Your task to perform on an android device: open app "PUBG MOBILE" Image 0: 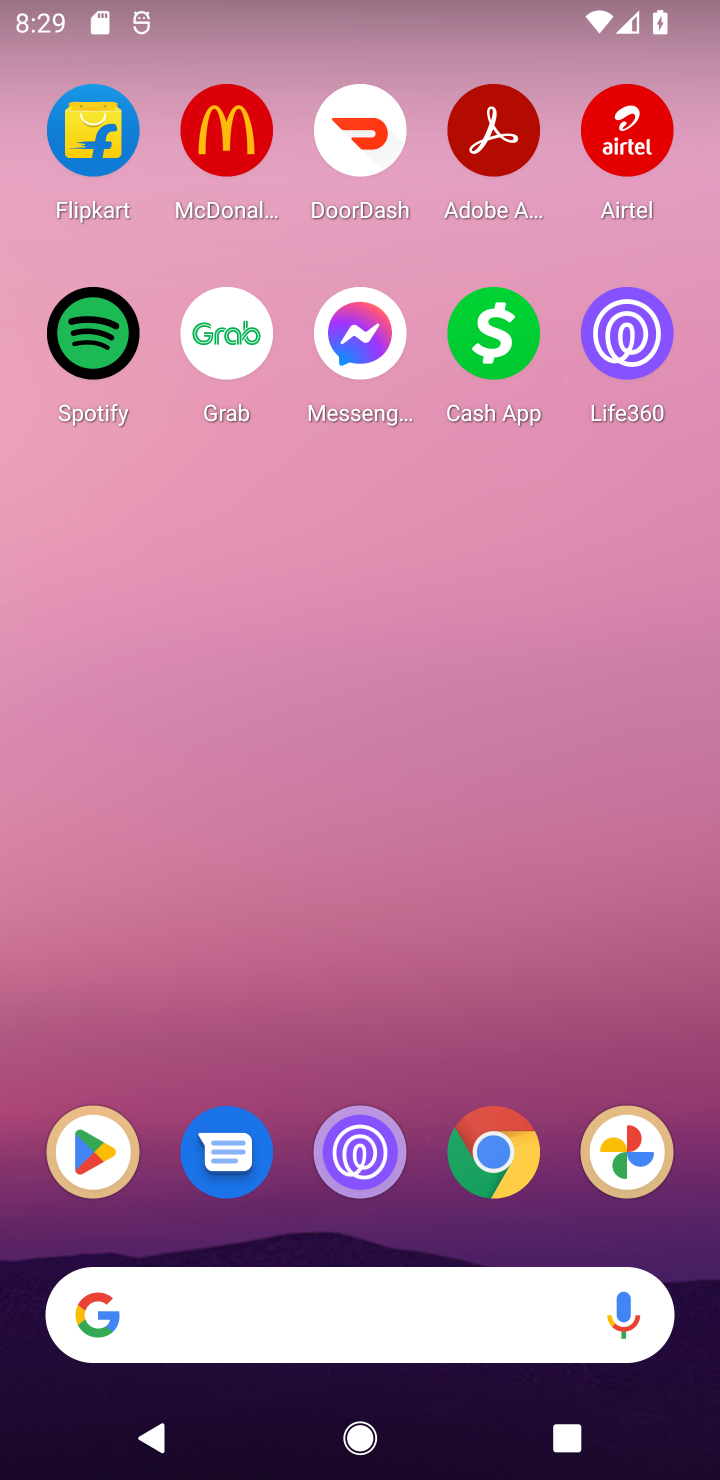
Step 0: click (91, 1135)
Your task to perform on an android device: open app "PUBG MOBILE" Image 1: 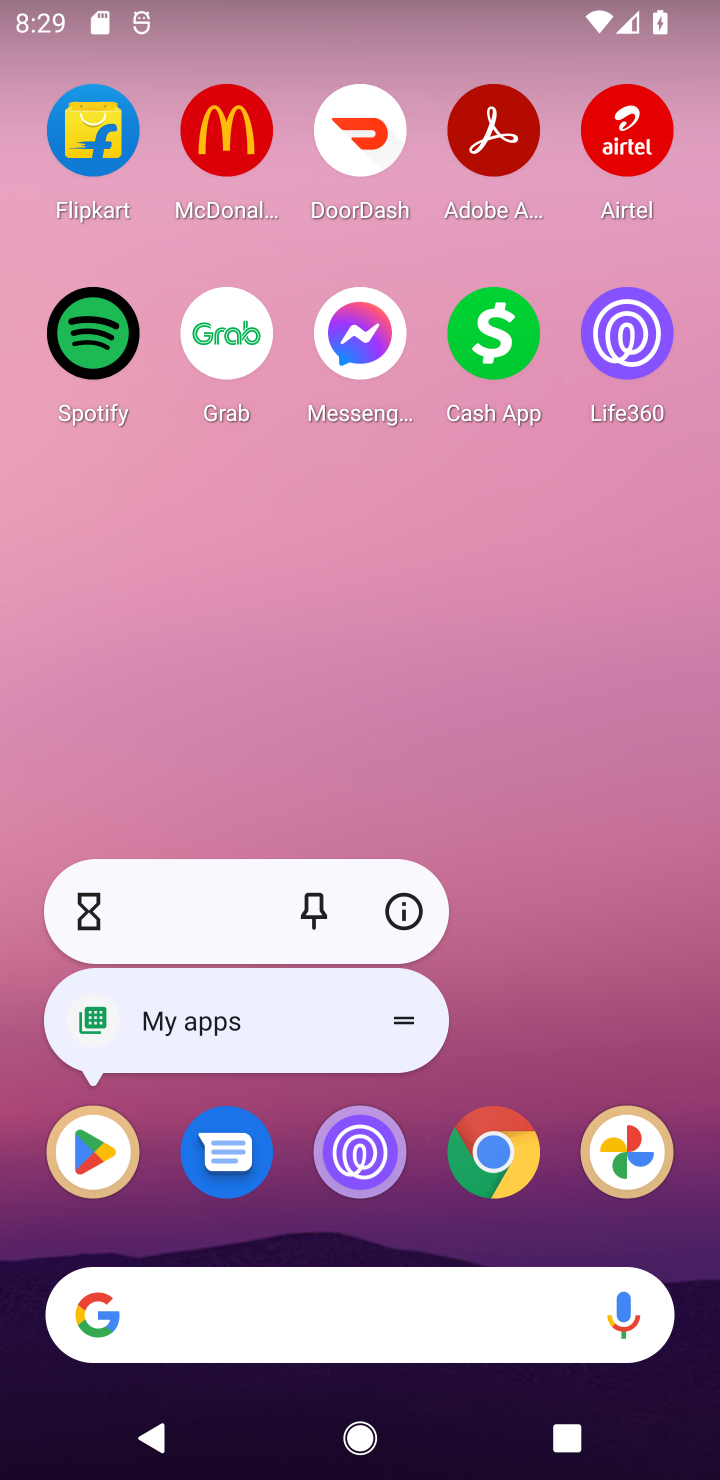
Step 1: click (91, 1175)
Your task to perform on an android device: open app "PUBG MOBILE" Image 2: 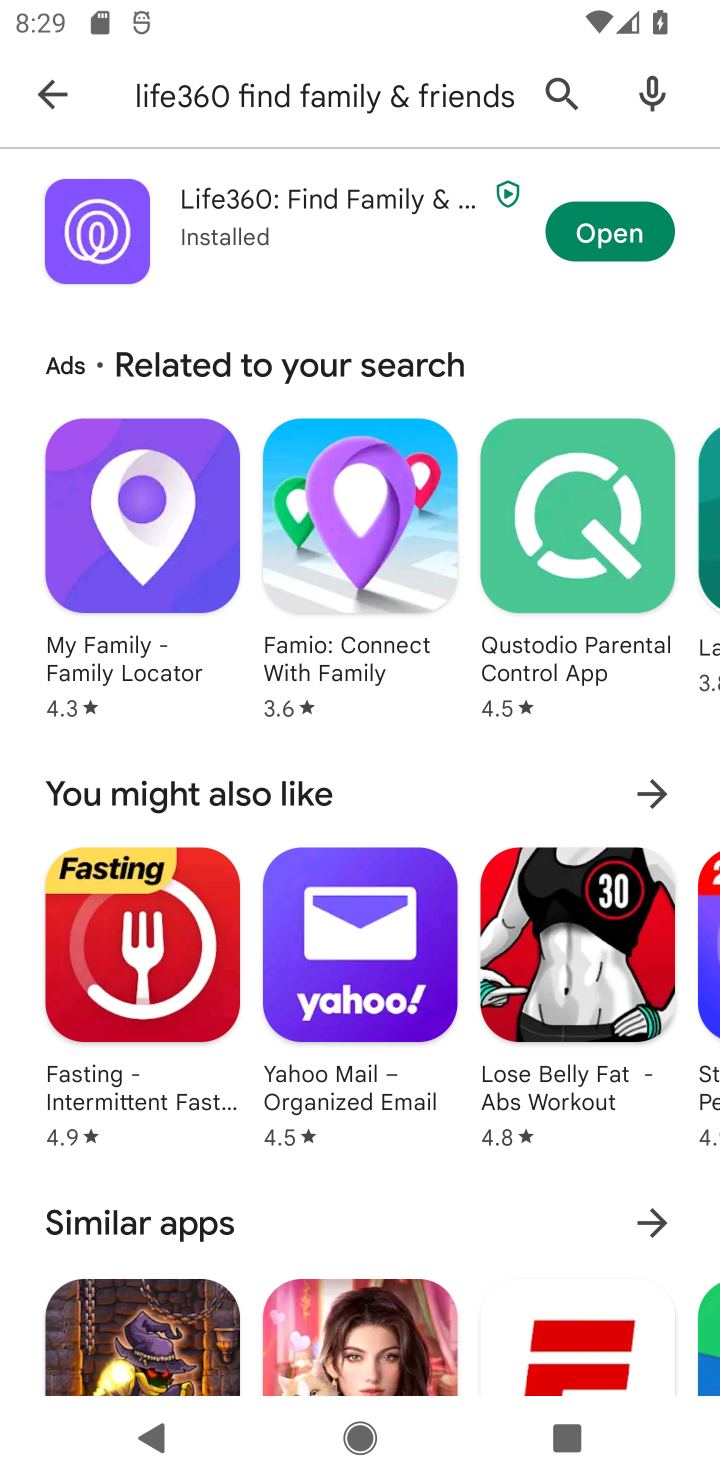
Step 2: click (43, 86)
Your task to perform on an android device: open app "PUBG MOBILE" Image 3: 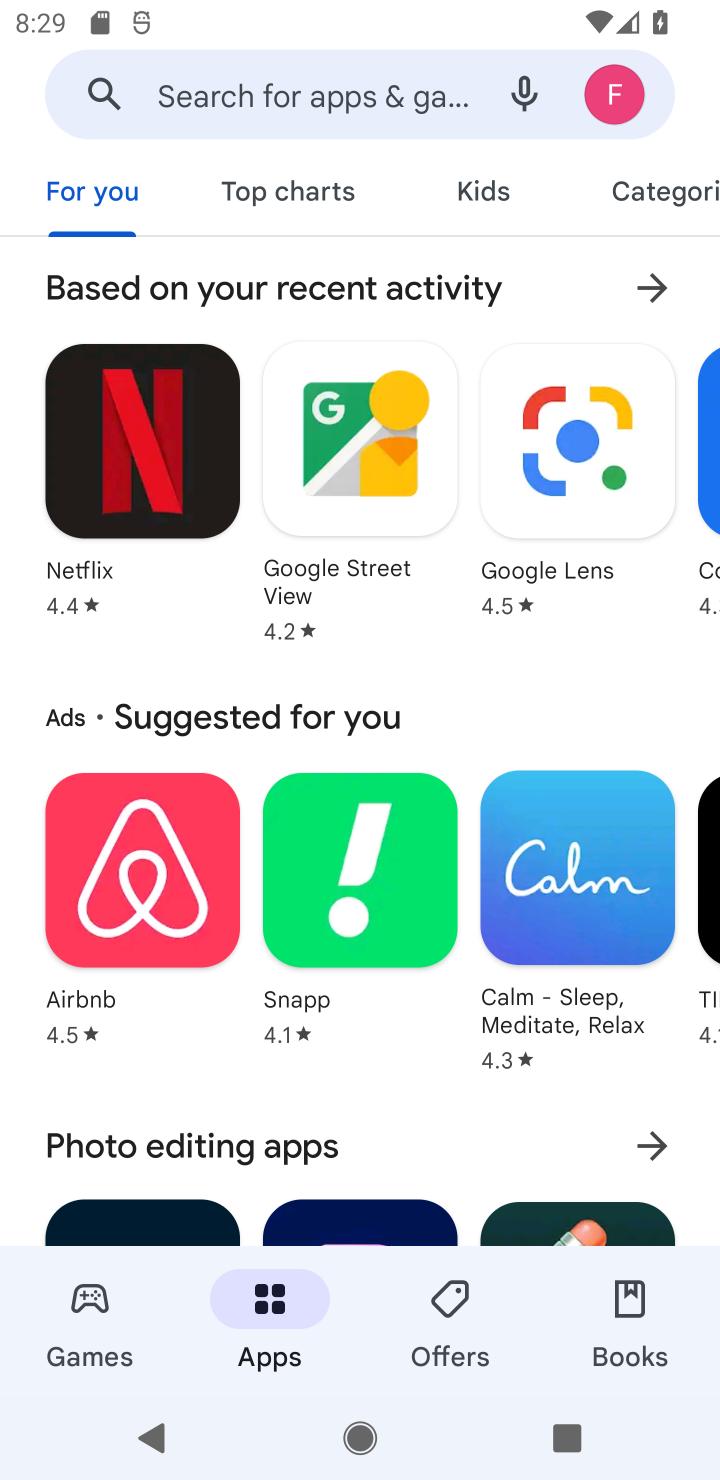
Step 3: click (240, 86)
Your task to perform on an android device: open app "PUBG MOBILE" Image 4: 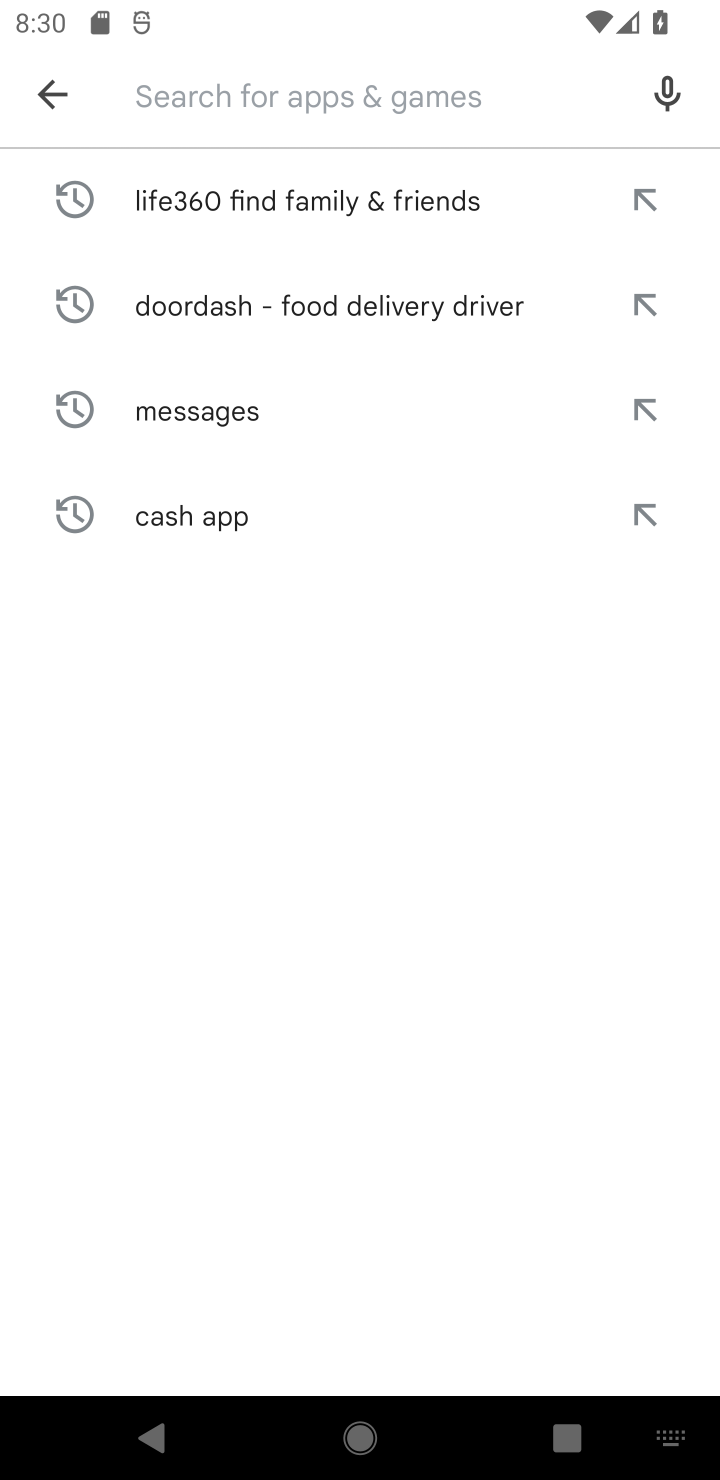
Step 4: type "PUBG MOBILE"
Your task to perform on an android device: open app "PUBG MOBILE" Image 5: 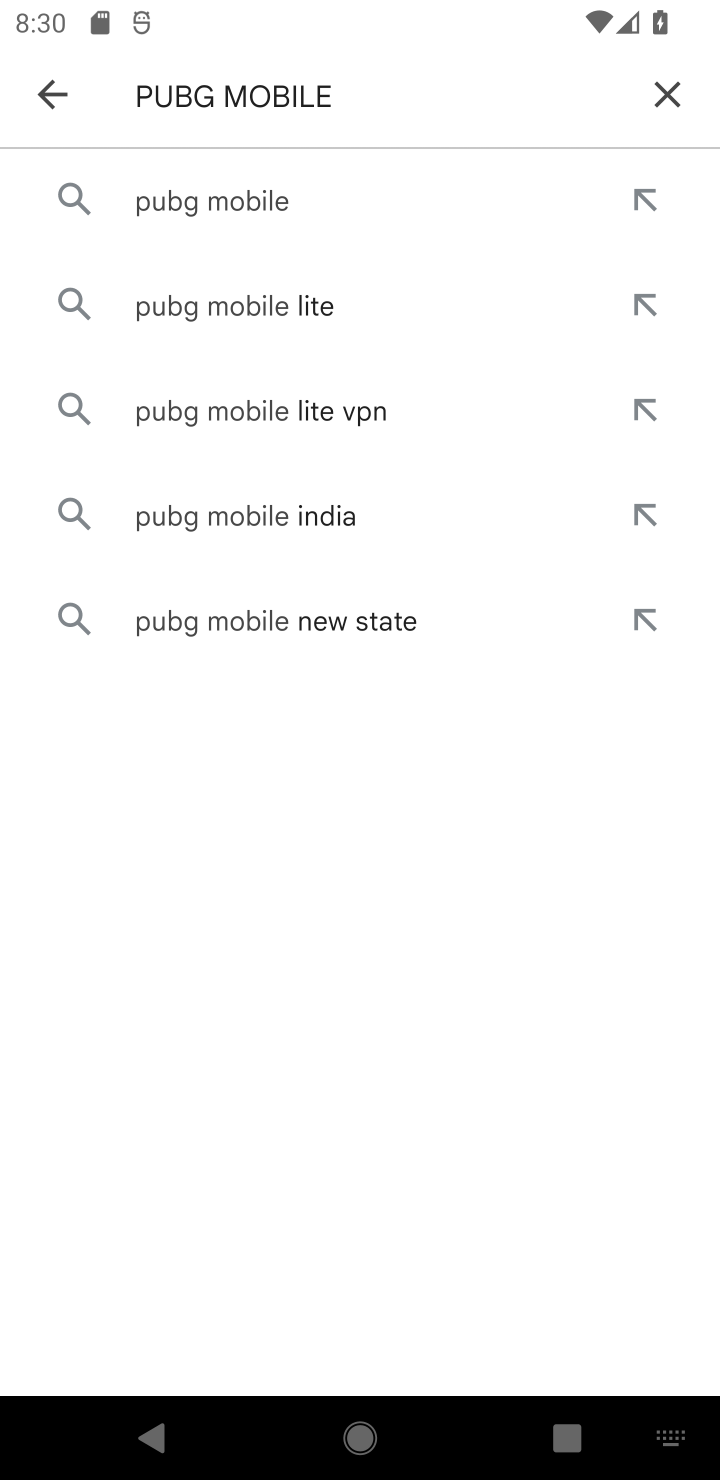
Step 5: click (254, 183)
Your task to perform on an android device: open app "PUBG MOBILE" Image 6: 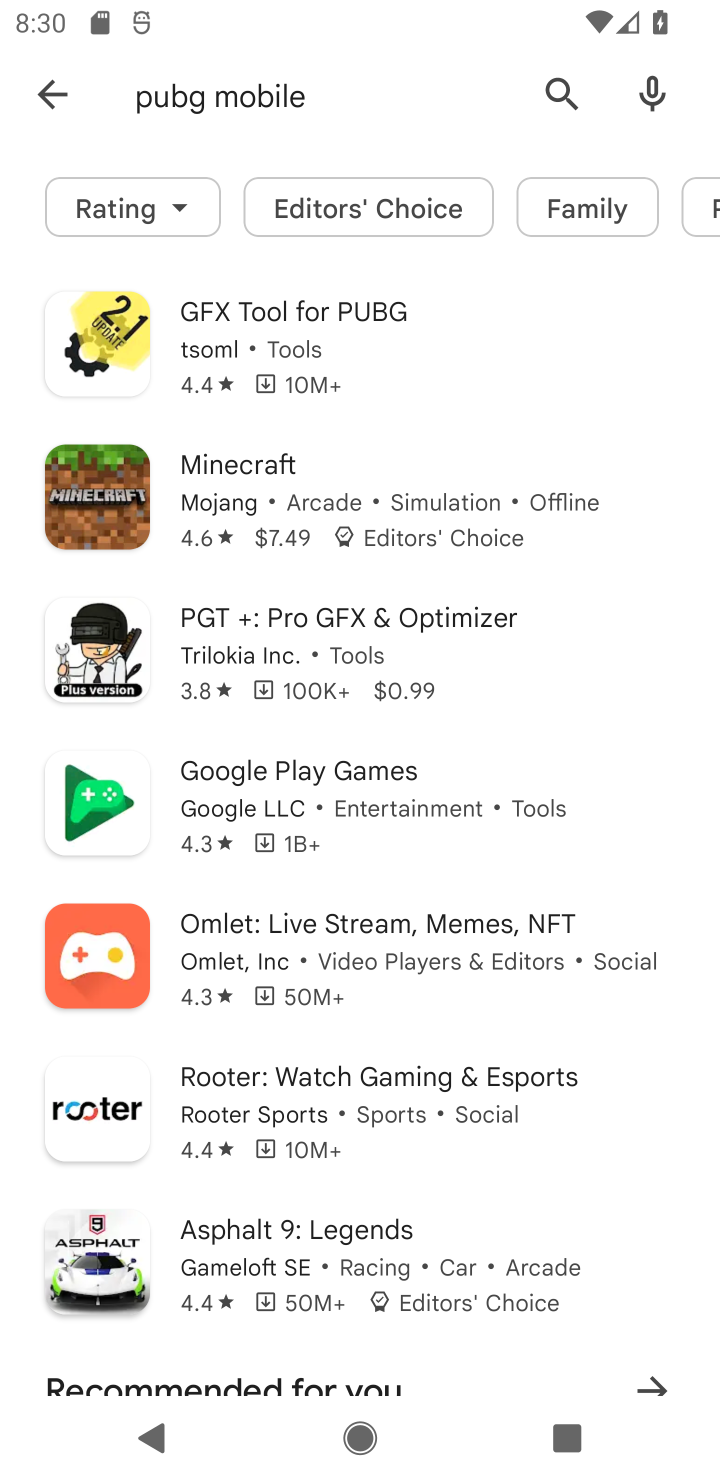
Step 6: click (291, 323)
Your task to perform on an android device: open app "PUBG MOBILE" Image 7: 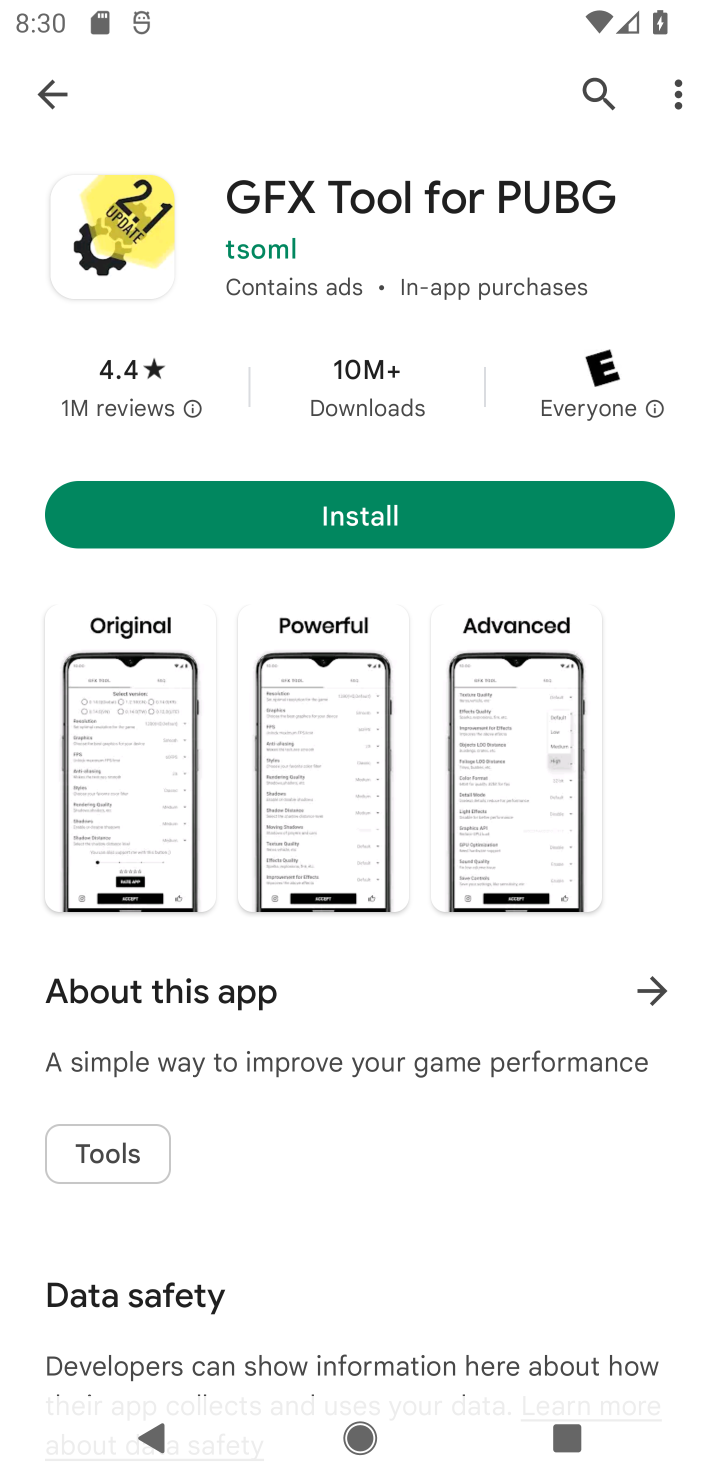
Step 7: click (433, 506)
Your task to perform on an android device: open app "PUBG MOBILE" Image 8: 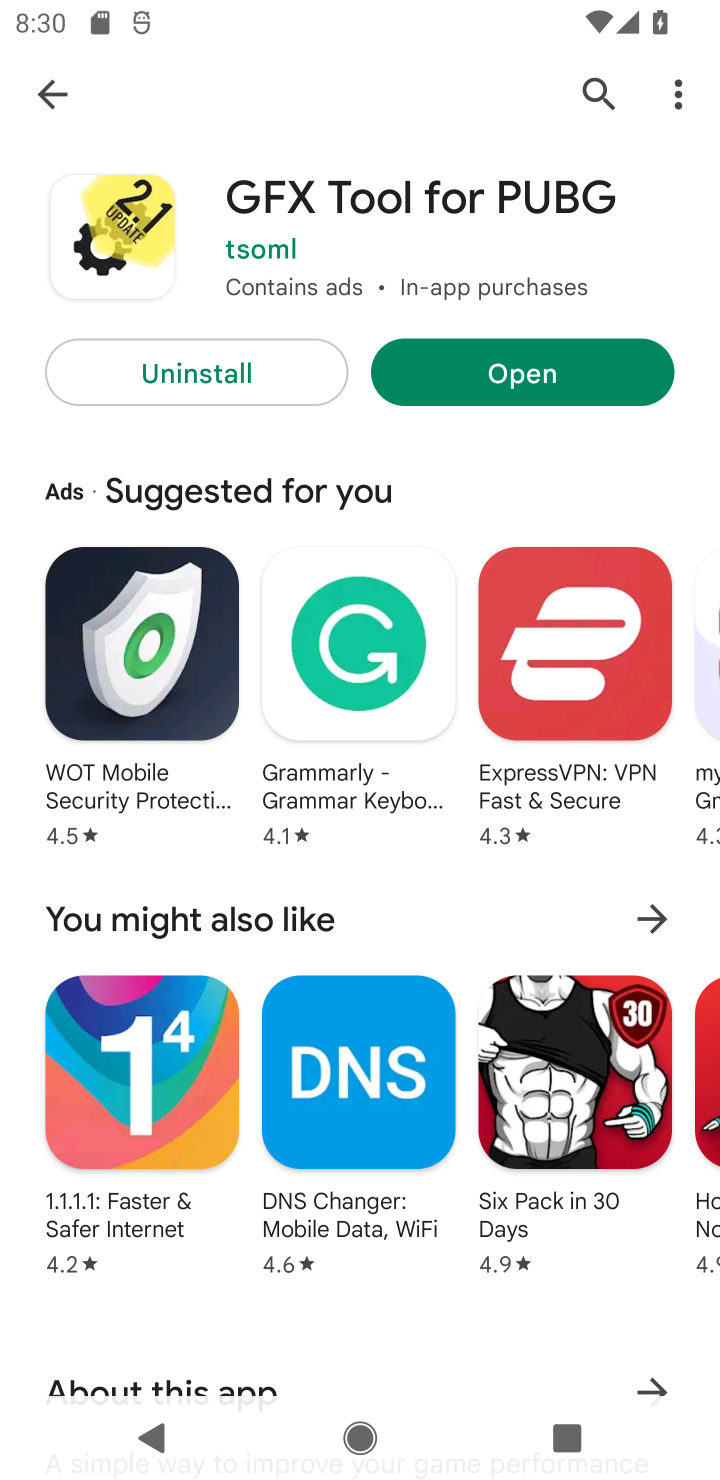
Step 8: click (478, 363)
Your task to perform on an android device: open app "PUBG MOBILE" Image 9: 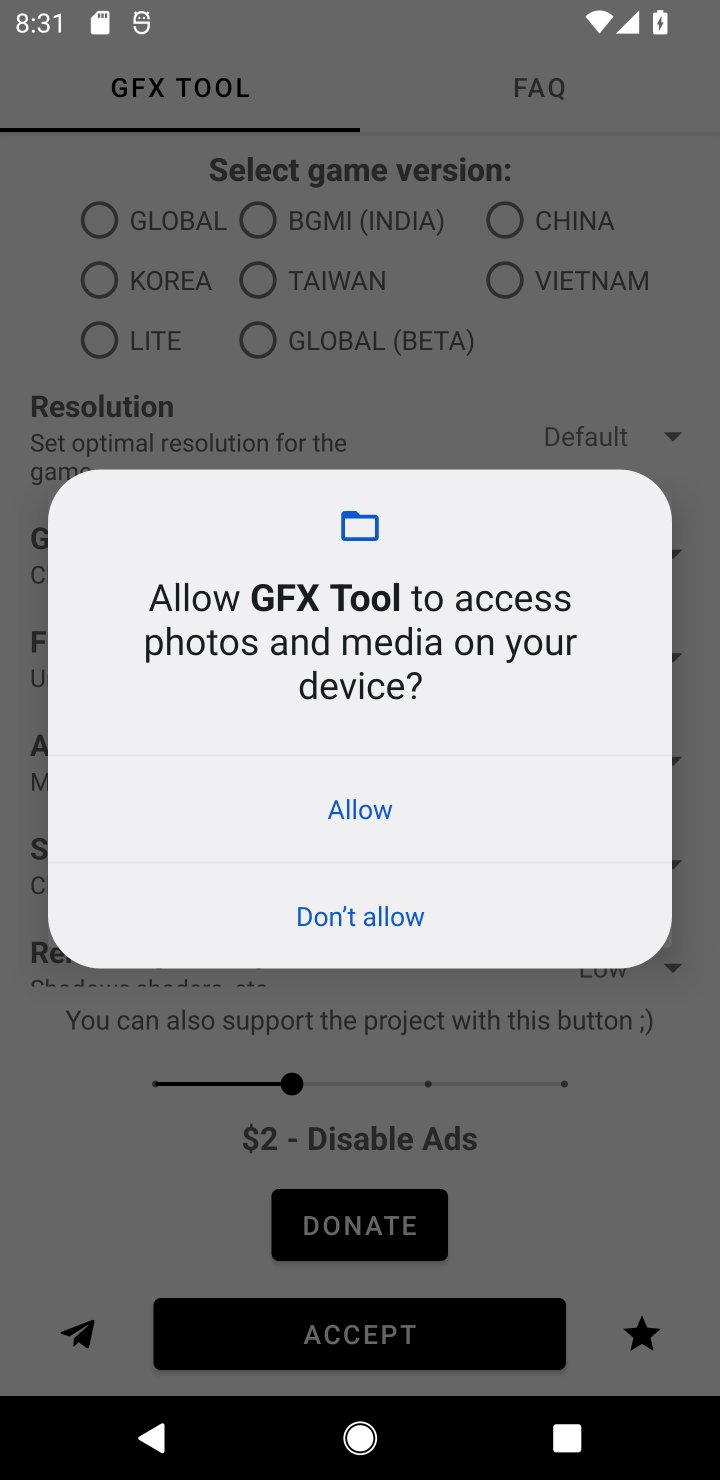
Step 9: click (369, 791)
Your task to perform on an android device: open app "PUBG MOBILE" Image 10: 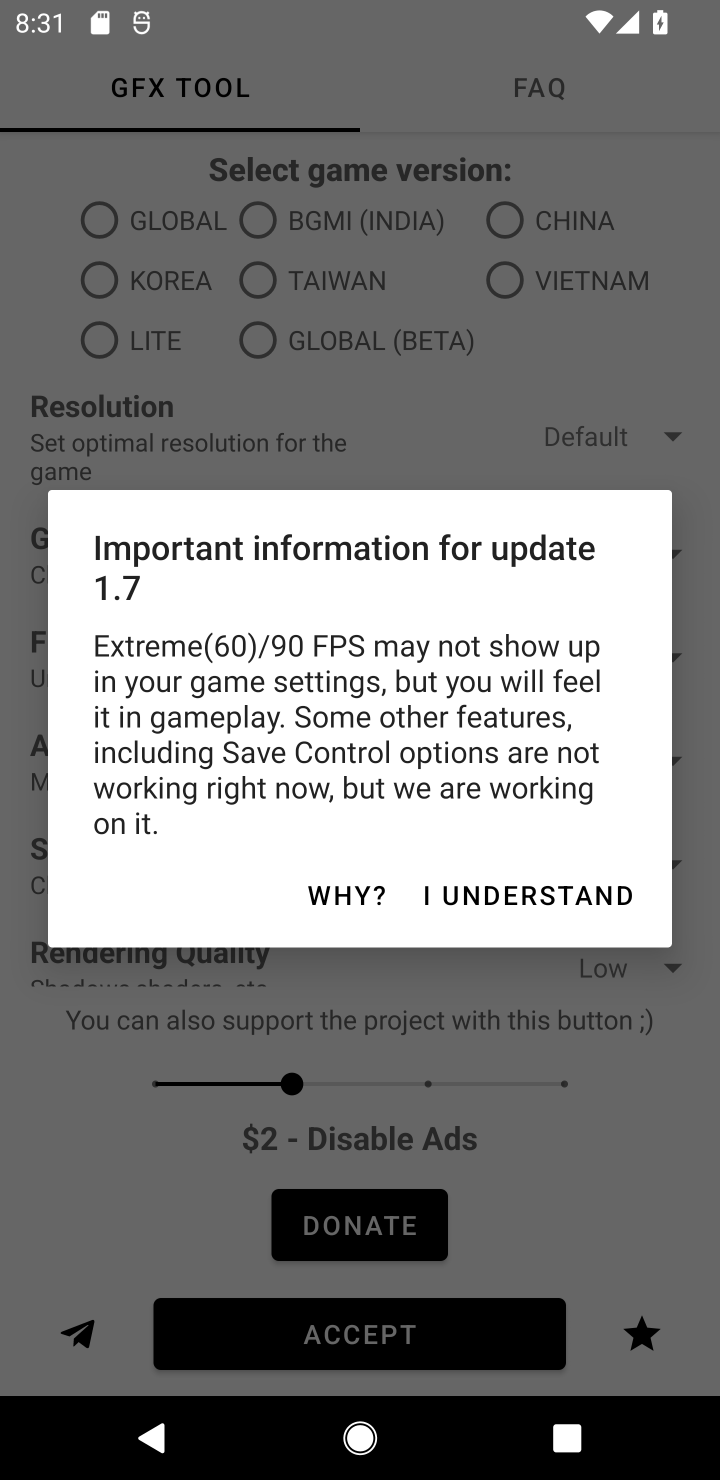
Step 10: task complete